Your task to perform on an android device: turn notification dots on Image 0: 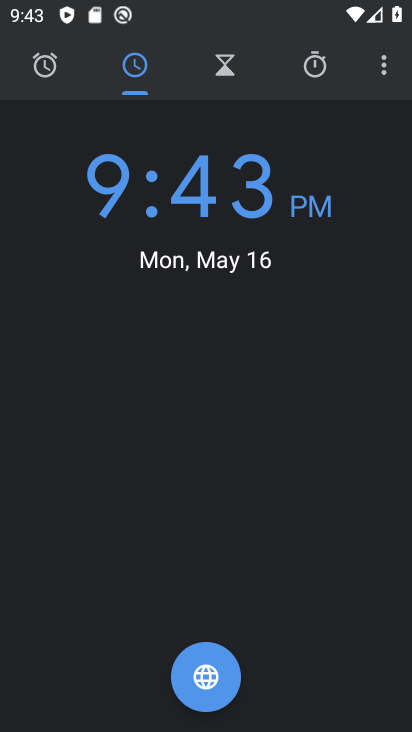
Step 0: press home button
Your task to perform on an android device: turn notification dots on Image 1: 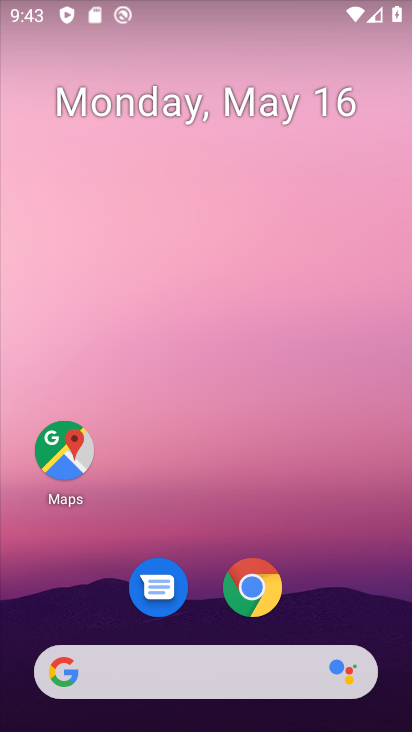
Step 1: drag from (199, 632) to (170, 70)
Your task to perform on an android device: turn notification dots on Image 2: 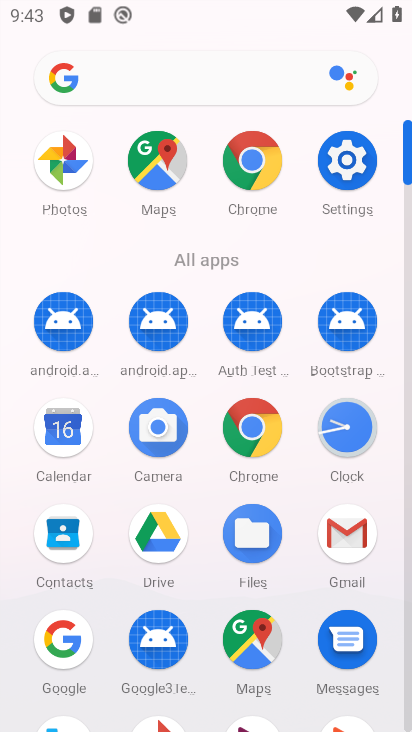
Step 2: click (338, 181)
Your task to perform on an android device: turn notification dots on Image 3: 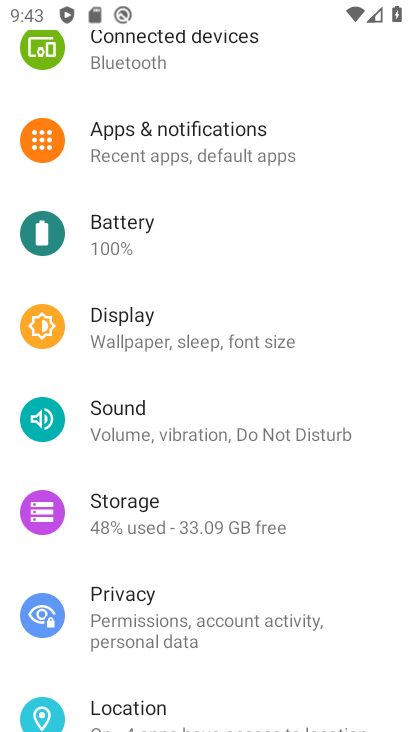
Step 3: click (169, 159)
Your task to perform on an android device: turn notification dots on Image 4: 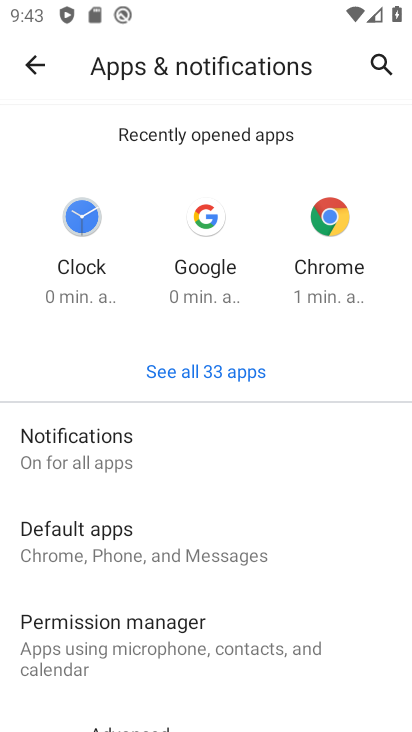
Step 4: click (114, 439)
Your task to perform on an android device: turn notification dots on Image 5: 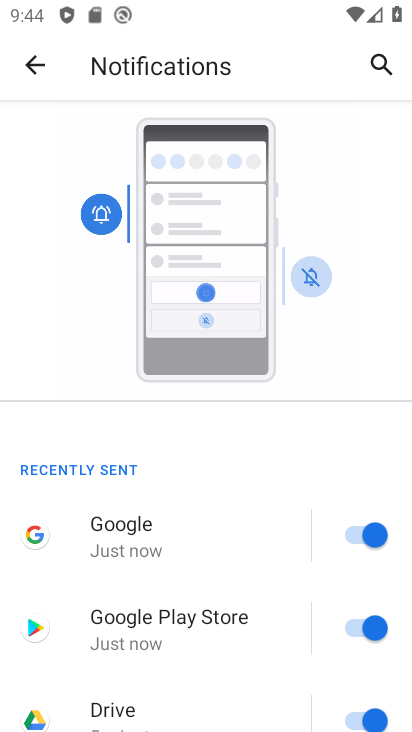
Step 5: drag from (258, 621) to (225, 146)
Your task to perform on an android device: turn notification dots on Image 6: 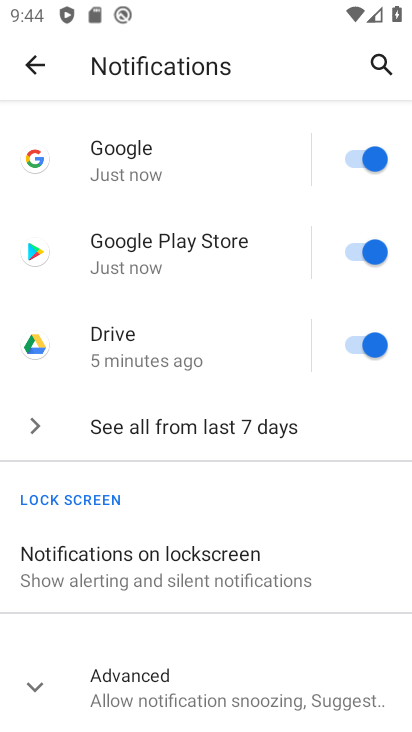
Step 6: click (197, 675)
Your task to perform on an android device: turn notification dots on Image 7: 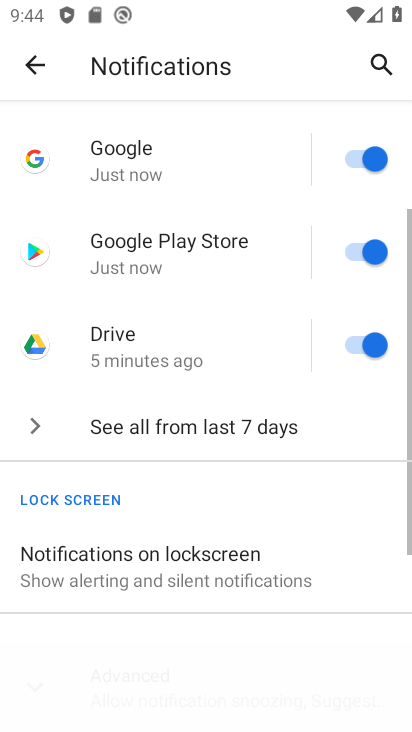
Step 7: task complete